Your task to perform on an android device: set the timer Image 0: 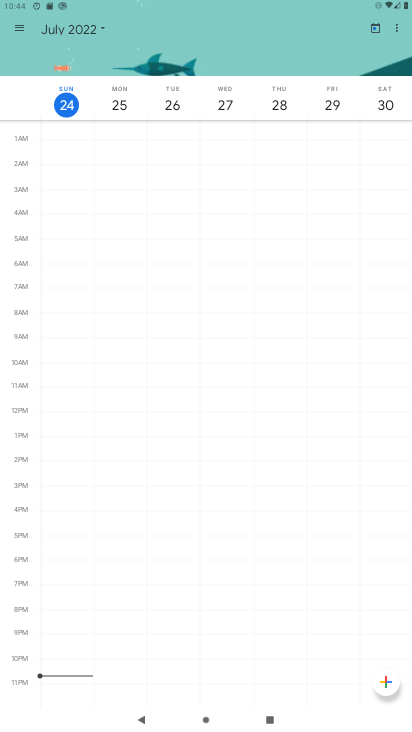
Step 0: press home button
Your task to perform on an android device: set the timer Image 1: 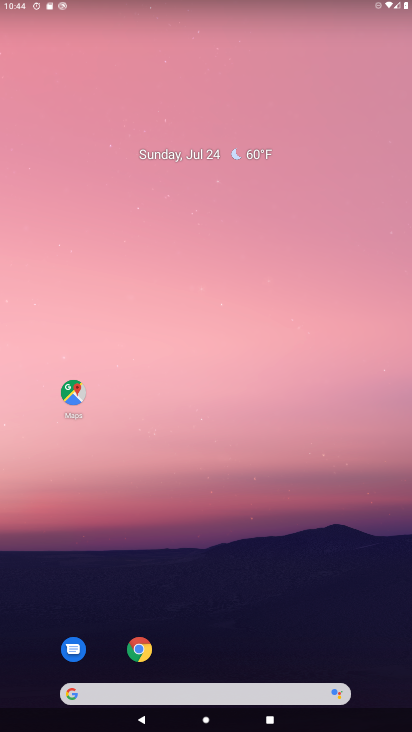
Step 1: drag from (329, 592) to (193, 58)
Your task to perform on an android device: set the timer Image 2: 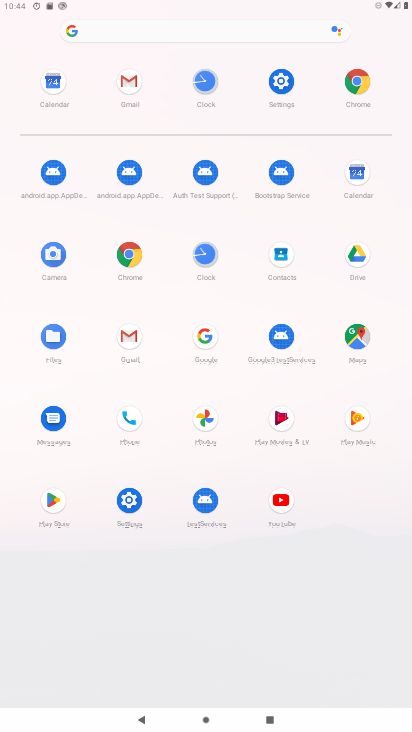
Step 2: click (195, 250)
Your task to perform on an android device: set the timer Image 3: 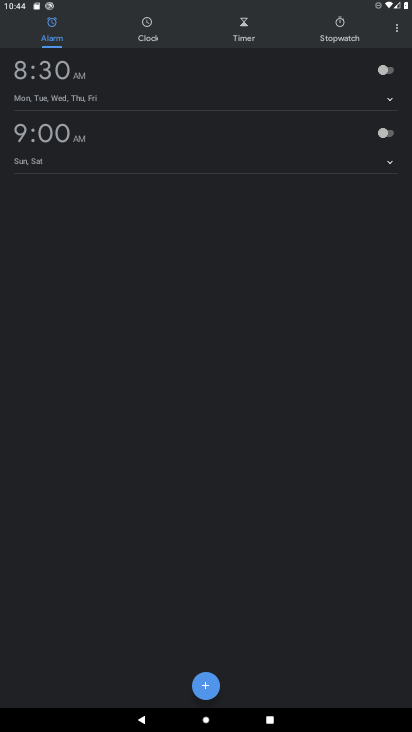
Step 3: click (235, 23)
Your task to perform on an android device: set the timer Image 4: 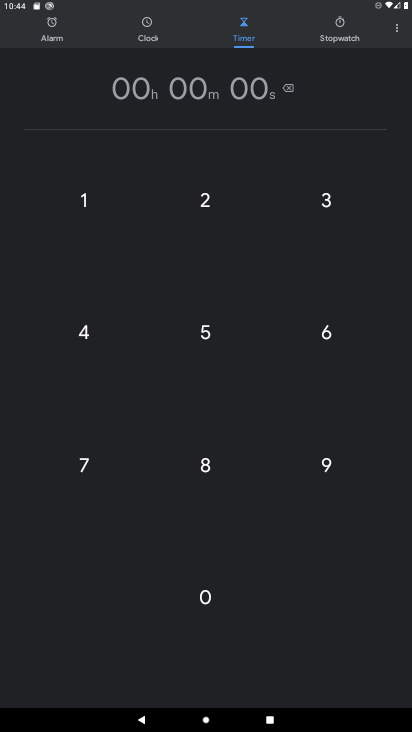
Step 4: click (214, 316)
Your task to perform on an android device: set the timer Image 5: 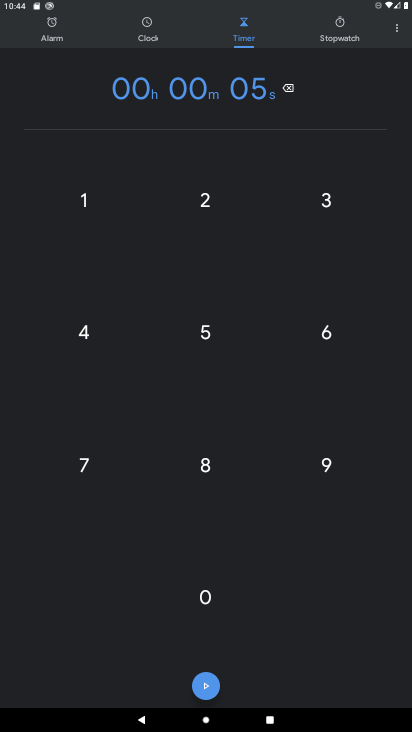
Step 5: task complete